Your task to perform on an android device: Open Youtube and go to "Your channel" Image 0: 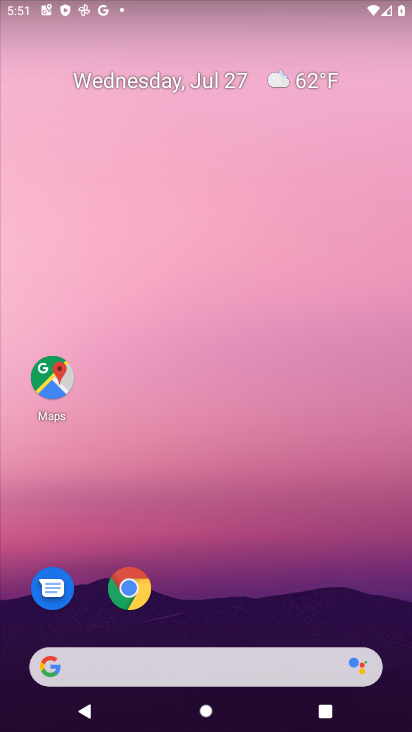
Step 0: drag from (180, 535) to (207, 0)
Your task to perform on an android device: Open Youtube and go to "Your channel" Image 1: 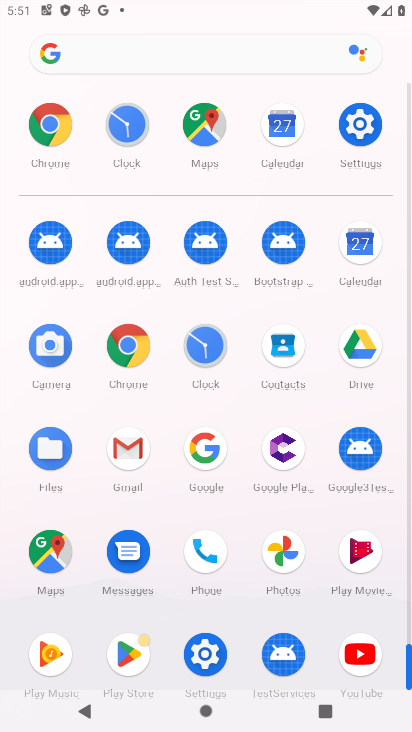
Step 1: click (362, 650)
Your task to perform on an android device: Open Youtube and go to "Your channel" Image 2: 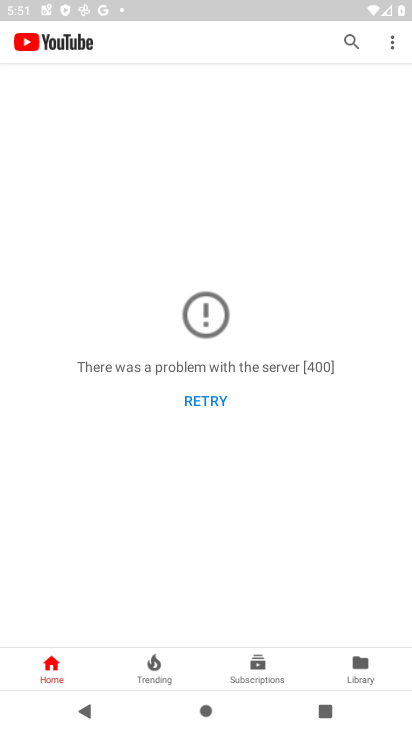
Step 2: click (361, 666)
Your task to perform on an android device: Open Youtube and go to "Your channel" Image 3: 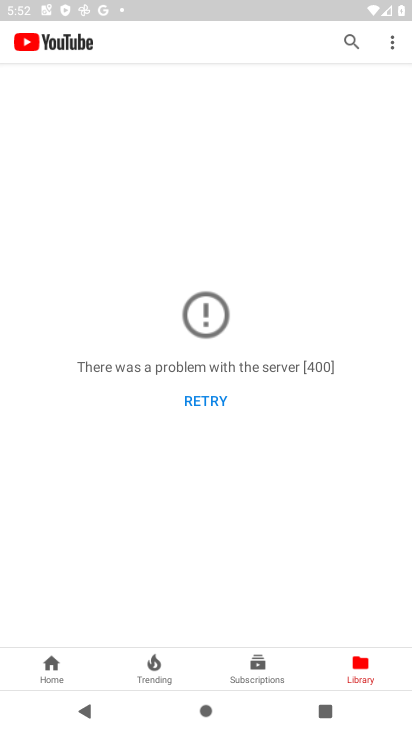
Step 3: task complete